Your task to perform on an android device: toggle priority inbox in the gmail app Image 0: 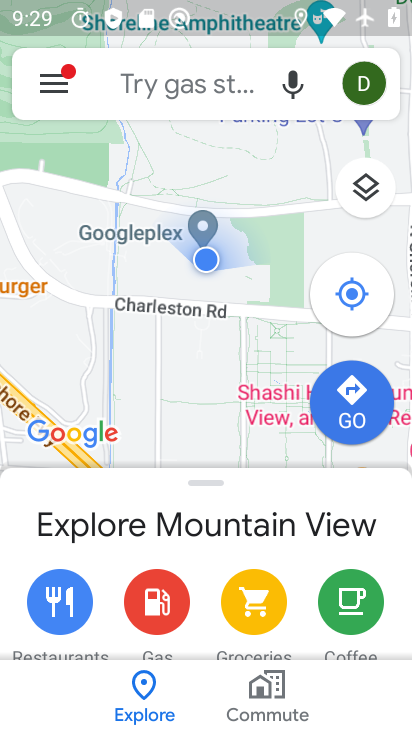
Step 0: press home button
Your task to perform on an android device: toggle priority inbox in the gmail app Image 1: 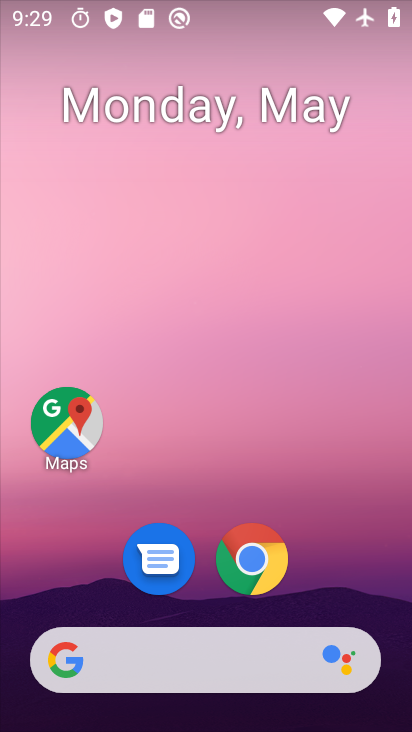
Step 1: drag from (333, 576) to (266, 47)
Your task to perform on an android device: toggle priority inbox in the gmail app Image 2: 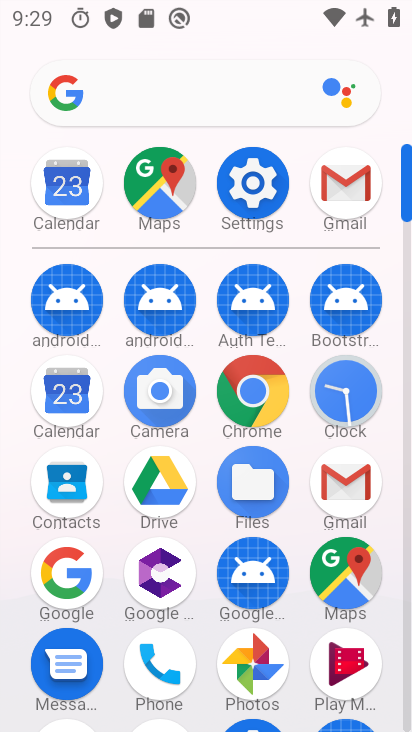
Step 2: click (351, 486)
Your task to perform on an android device: toggle priority inbox in the gmail app Image 3: 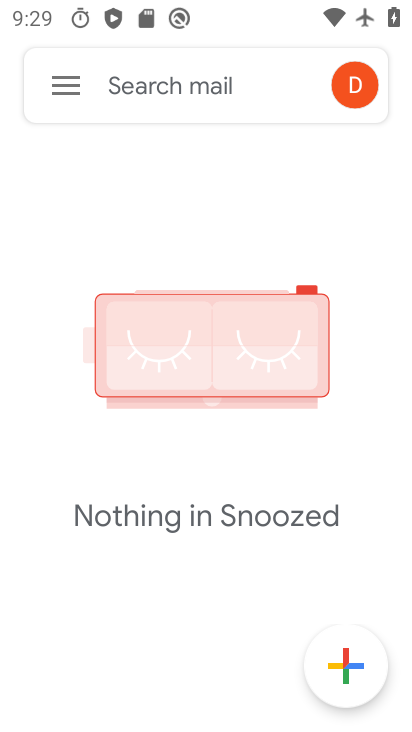
Step 3: click (52, 88)
Your task to perform on an android device: toggle priority inbox in the gmail app Image 4: 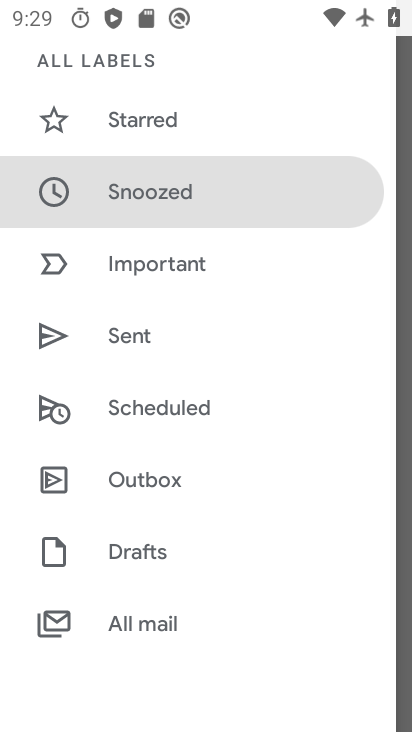
Step 4: drag from (161, 603) to (148, 184)
Your task to perform on an android device: toggle priority inbox in the gmail app Image 5: 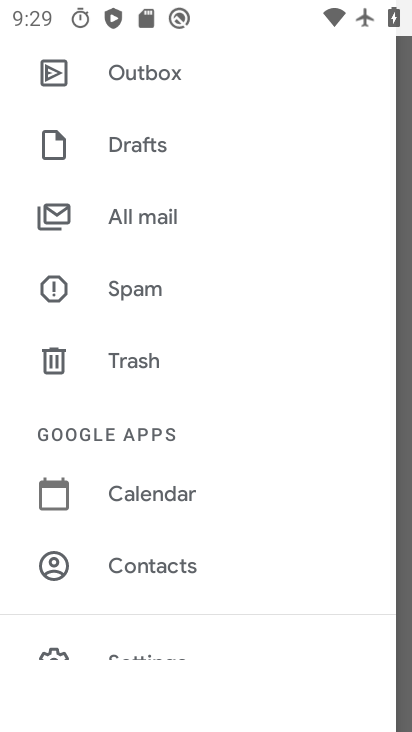
Step 5: click (135, 649)
Your task to perform on an android device: toggle priority inbox in the gmail app Image 6: 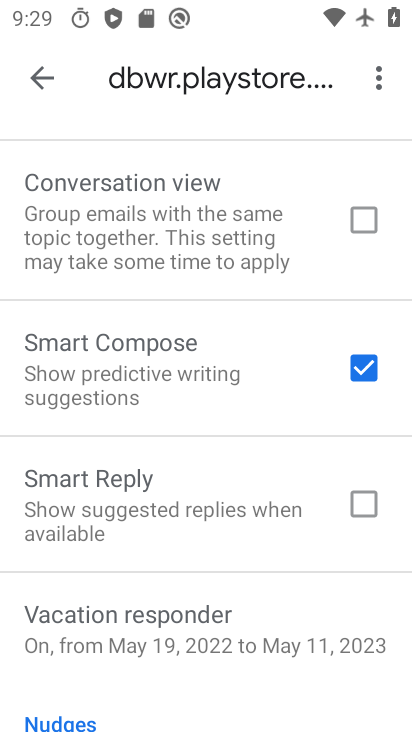
Step 6: drag from (181, 297) to (250, 545)
Your task to perform on an android device: toggle priority inbox in the gmail app Image 7: 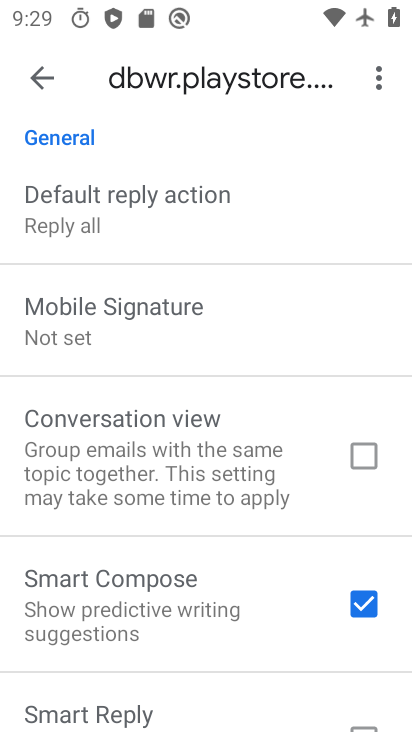
Step 7: drag from (233, 354) to (255, 541)
Your task to perform on an android device: toggle priority inbox in the gmail app Image 8: 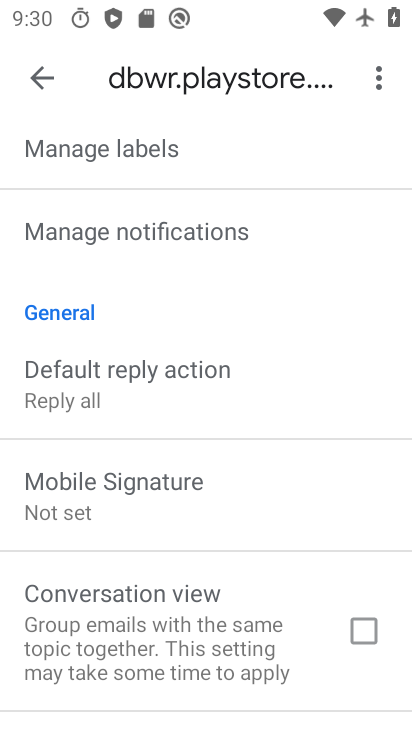
Step 8: drag from (145, 282) to (137, 603)
Your task to perform on an android device: toggle priority inbox in the gmail app Image 9: 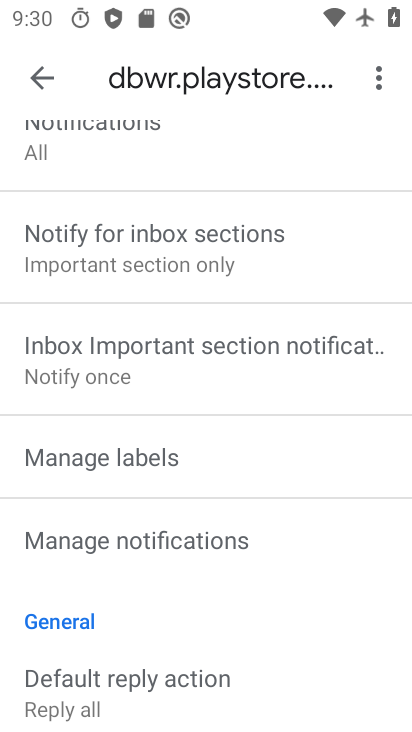
Step 9: drag from (144, 233) to (137, 637)
Your task to perform on an android device: toggle priority inbox in the gmail app Image 10: 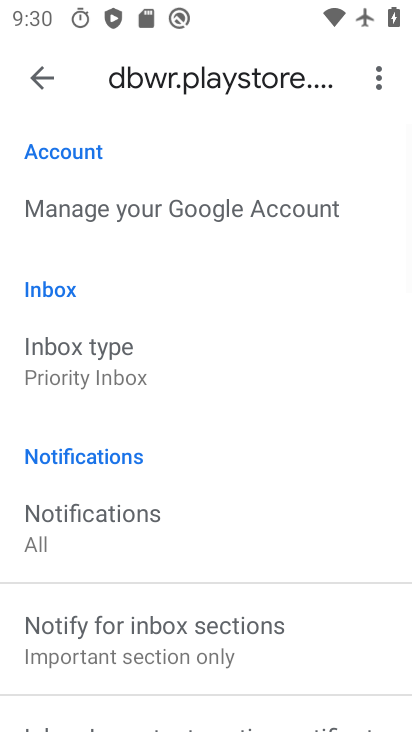
Step 10: click (130, 374)
Your task to perform on an android device: toggle priority inbox in the gmail app Image 11: 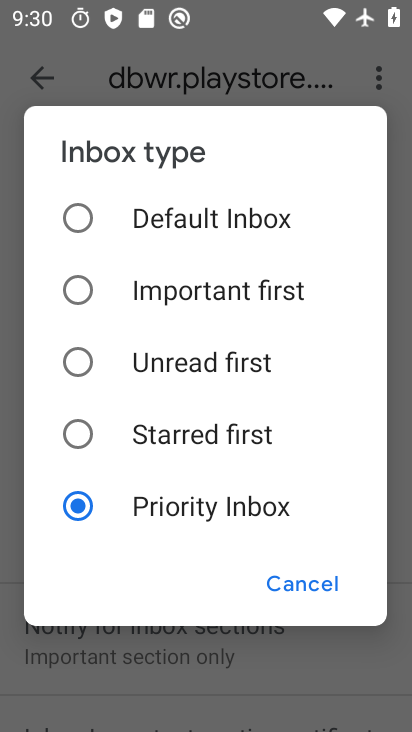
Step 11: click (148, 225)
Your task to perform on an android device: toggle priority inbox in the gmail app Image 12: 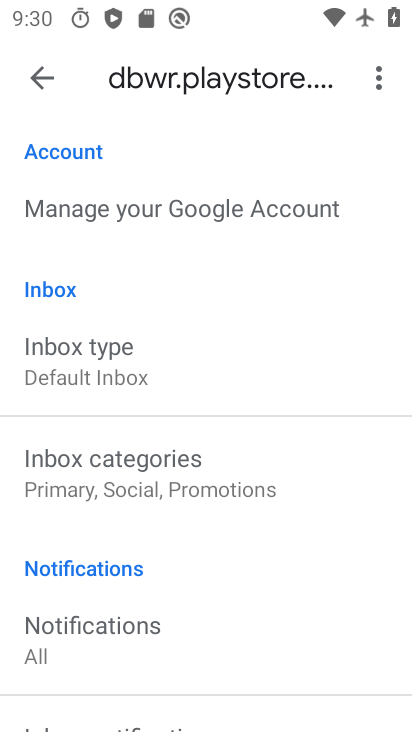
Step 12: task complete